Your task to perform on an android device: clear all cookies in the chrome app Image 0: 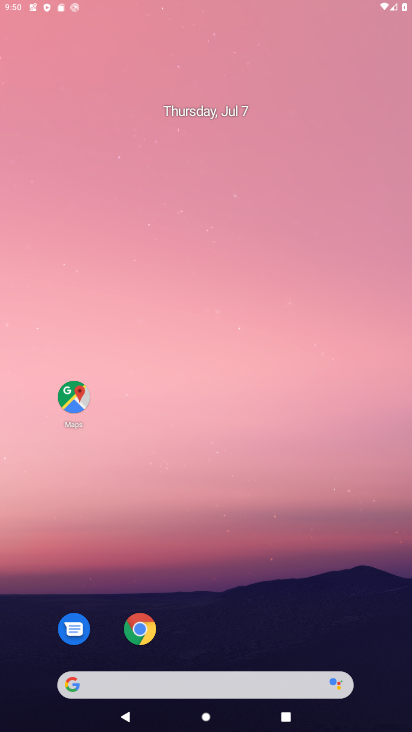
Step 0: press home button
Your task to perform on an android device: clear all cookies in the chrome app Image 1: 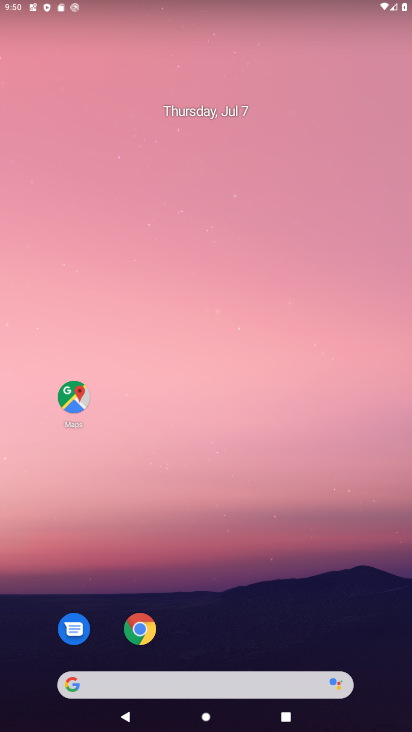
Step 1: drag from (194, 653) to (169, 0)
Your task to perform on an android device: clear all cookies in the chrome app Image 2: 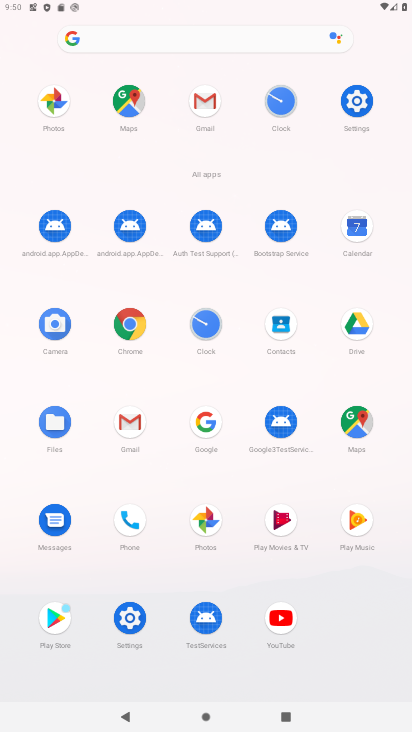
Step 2: click (138, 328)
Your task to perform on an android device: clear all cookies in the chrome app Image 3: 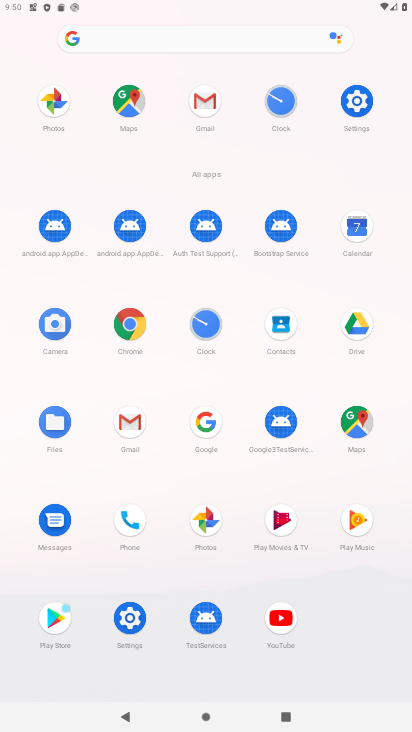
Step 3: click (127, 328)
Your task to perform on an android device: clear all cookies in the chrome app Image 4: 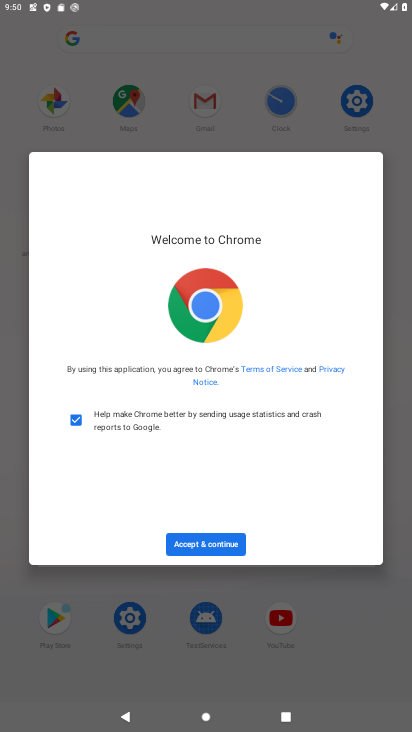
Step 4: click (204, 546)
Your task to perform on an android device: clear all cookies in the chrome app Image 5: 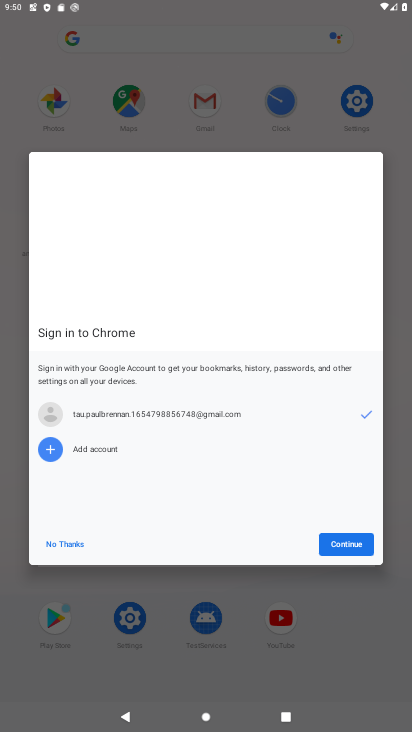
Step 5: click (343, 538)
Your task to perform on an android device: clear all cookies in the chrome app Image 6: 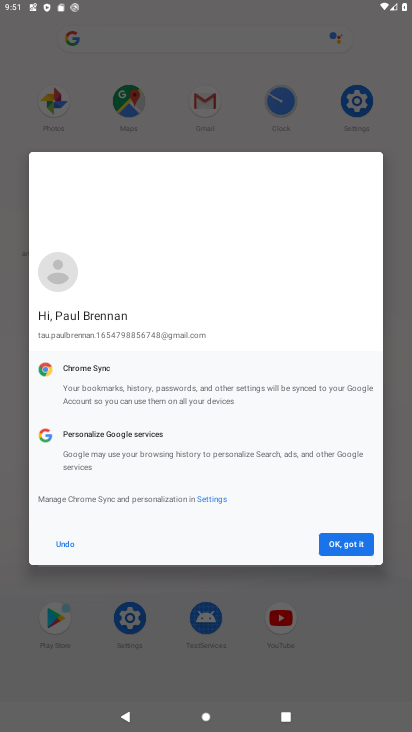
Step 6: click (358, 538)
Your task to perform on an android device: clear all cookies in the chrome app Image 7: 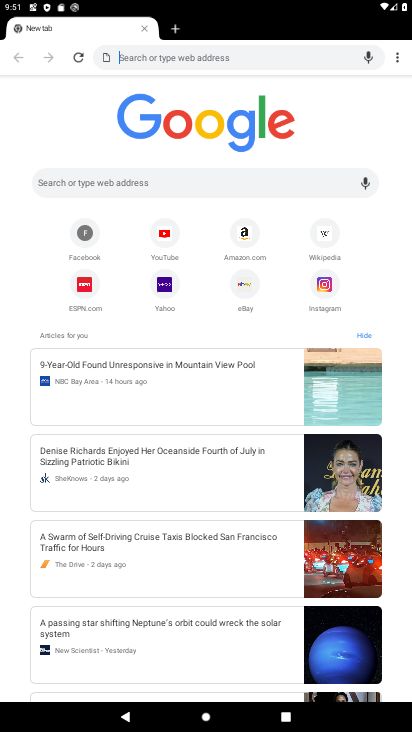
Step 7: click (398, 57)
Your task to perform on an android device: clear all cookies in the chrome app Image 8: 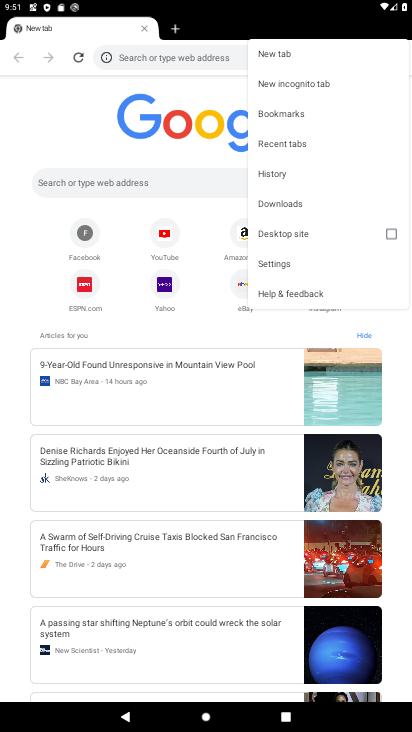
Step 8: click (282, 252)
Your task to perform on an android device: clear all cookies in the chrome app Image 9: 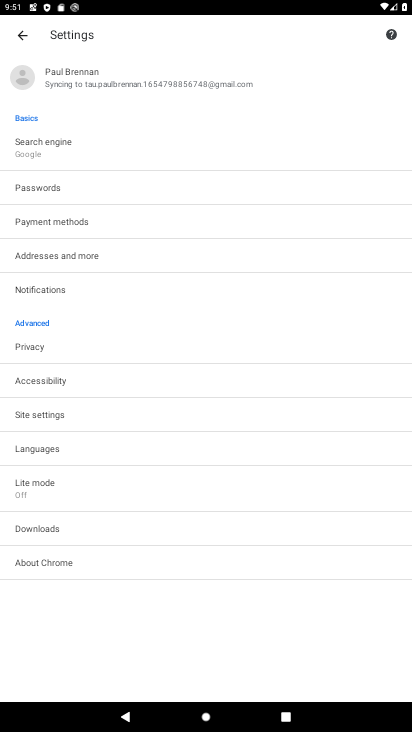
Step 9: click (15, 30)
Your task to perform on an android device: clear all cookies in the chrome app Image 10: 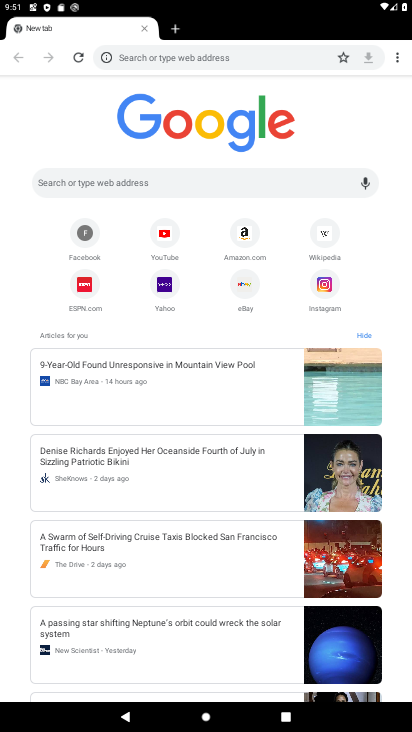
Step 10: click (400, 55)
Your task to perform on an android device: clear all cookies in the chrome app Image 11: 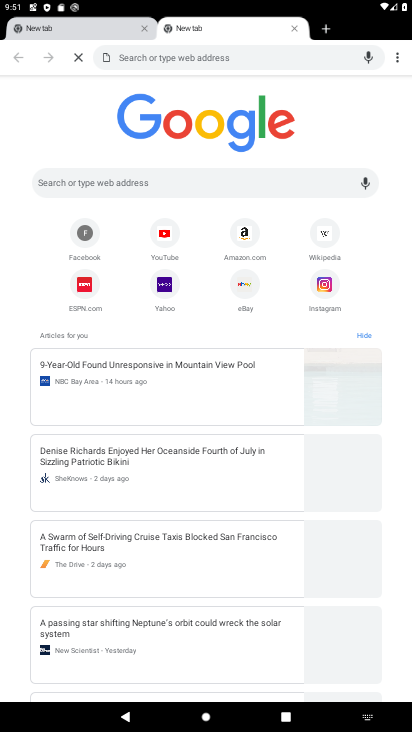
Step 11: drag from (384, 60) to (308, 215)
Your task to perform on an android device: clear all cookies in the chrome app Image 12: 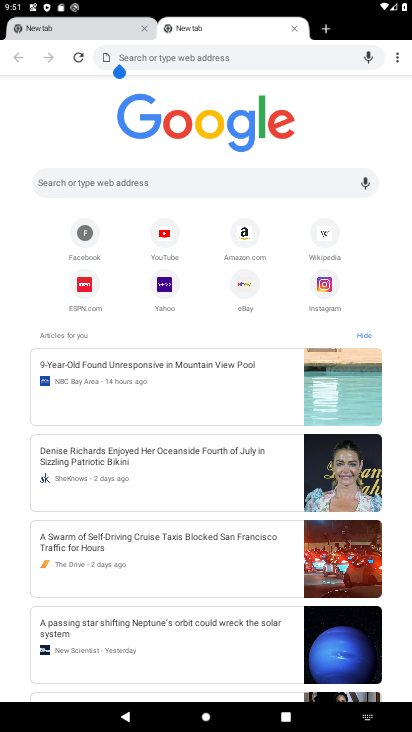
Step 12: click (401, 65)
Your task to perform on an android device: clear all cookies in the chrome app Image 13: 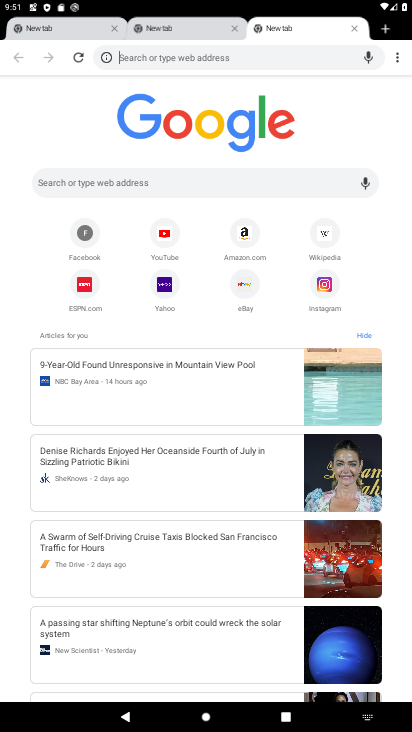
Step 13: click (393, 58)
Your task to perform on an android device: clear all cookies in the chrome app Image 14: 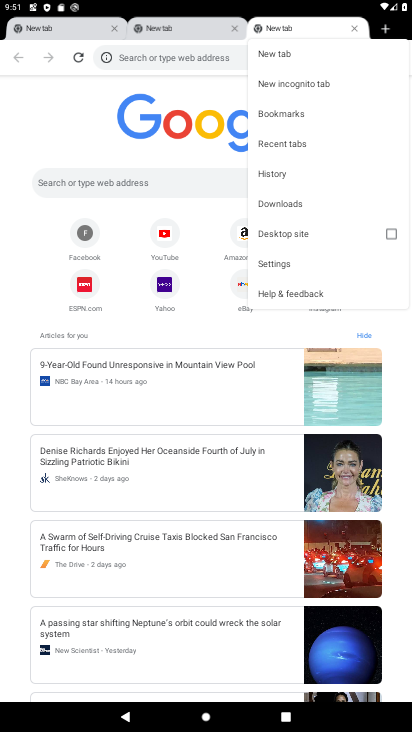
Step 14: click (278, 160)
Your task to perform on an android device: clear all cookies in the chrome app Image 15: 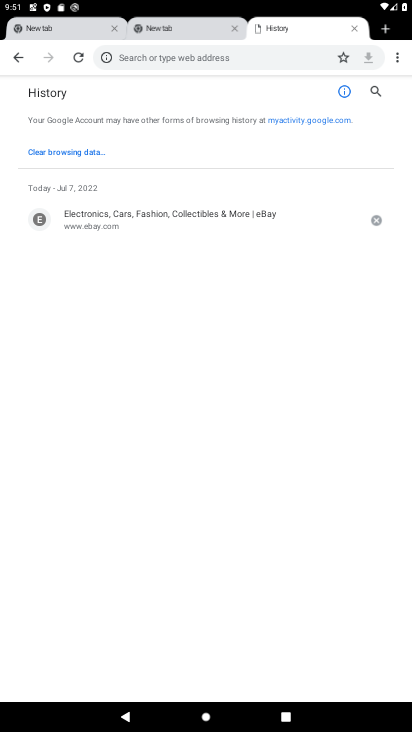
Step 15: click (81, 155)
Your task to perform on an android device: clear all cookies in the chrome app Image 16: 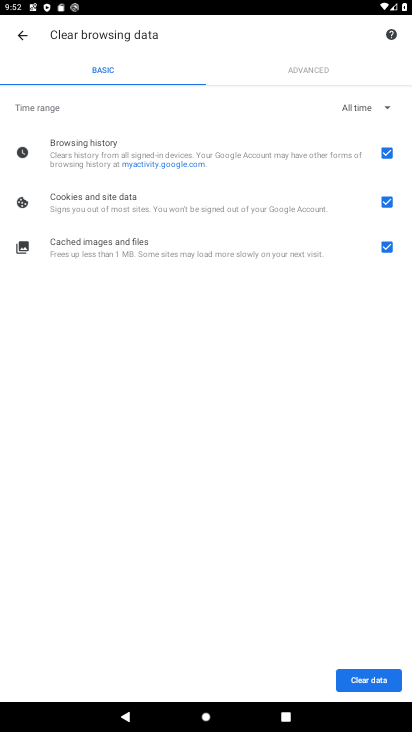
Step 16: click (371, 678)
Your task to perform on an android device: clear all cookies in the chrome app Image 17: 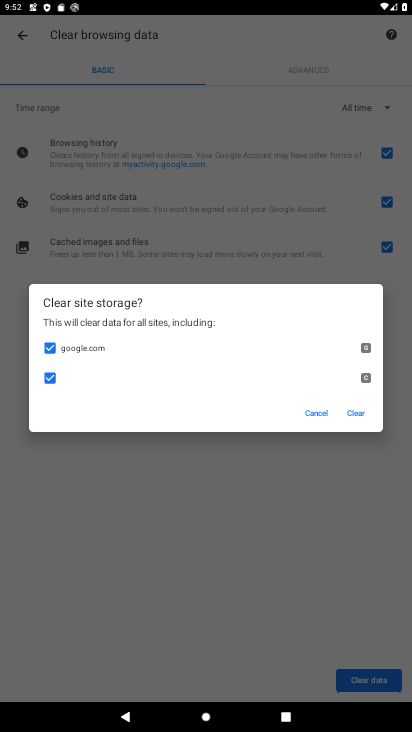
Step 17: click (358, 407)
Your task to perform on an android device: clear all cookies in the chrome app Image 18: 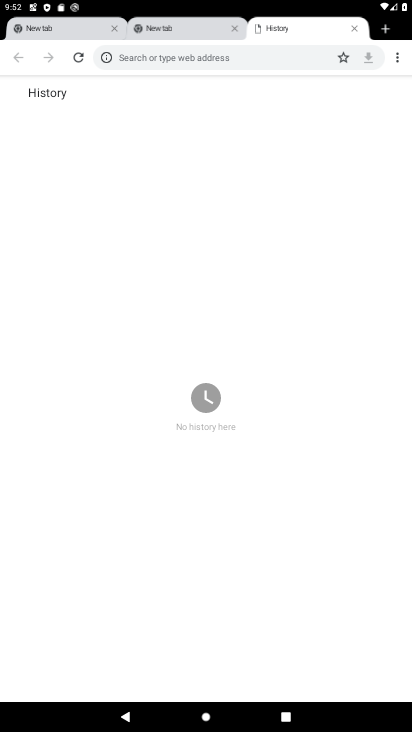
Step 18: task complete